Your task to perform on an android device: toggle sleep mode Image 0: 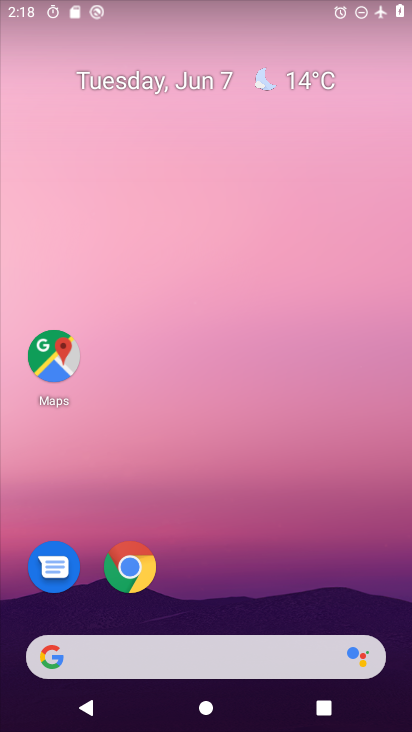
Step 0: drag from (336, 574) to (400, 0)
Your task to perform on an android device: toggle sleep mode Image 1: 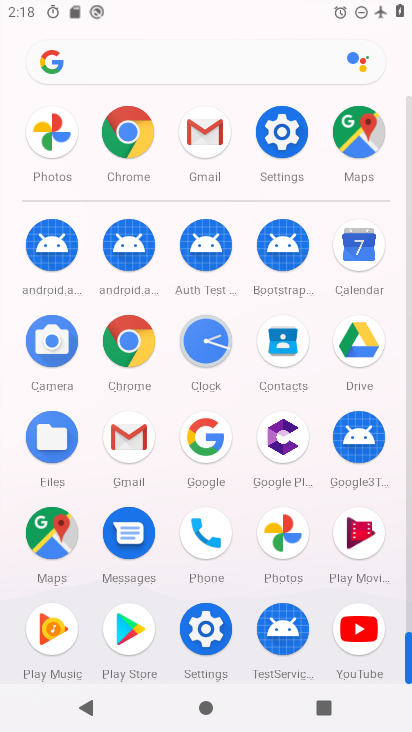
Step 1: click (294, 151)
Your task to perform on an android device: toggle sleep mode Image 2: 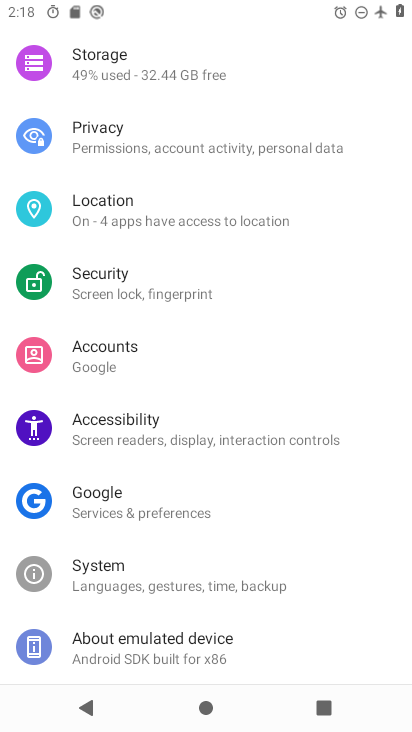
Step 2: drag from (244, 203) to (216, 605)
Your task to perform on an android device: toggle sleep mode Image 3: 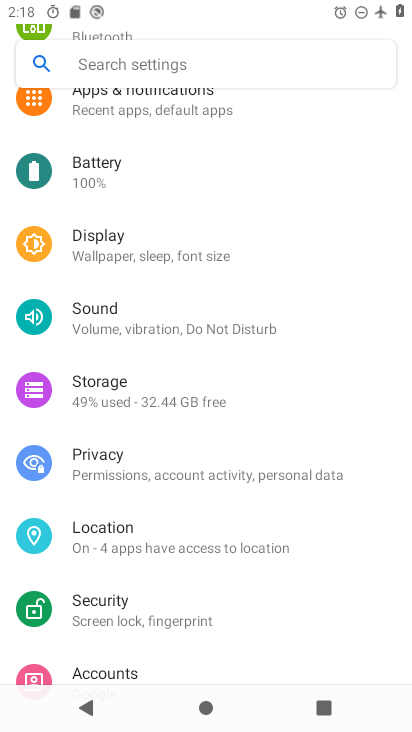
Step 3: click (157, 235)
Your task to perform on an android device: toggle sleep mode Image 4: 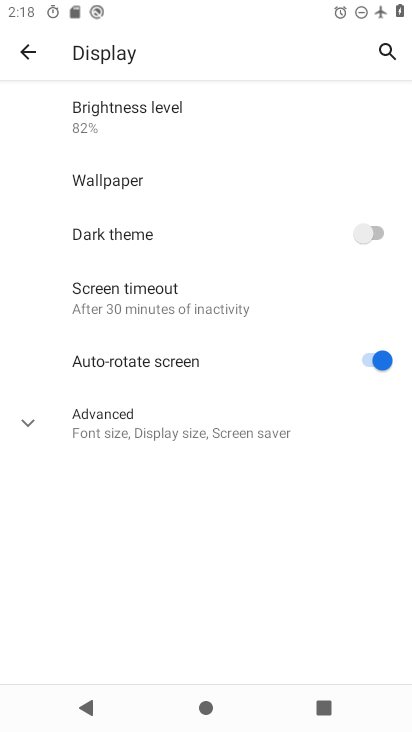
Step 4: click (112, 308)
Your task to perform on an android device: toggle sleep mode Image 5: 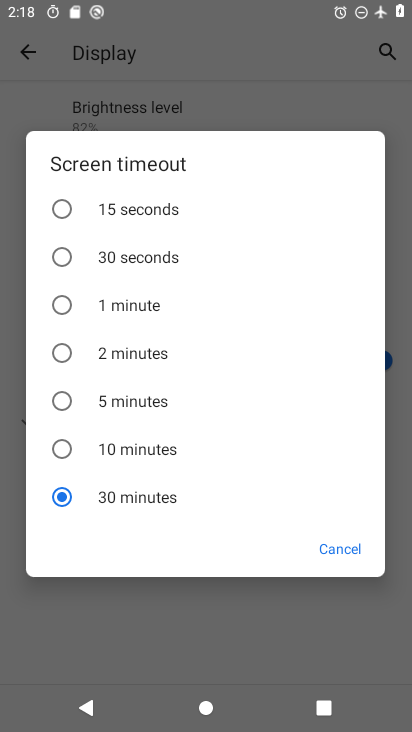
Step 5: click (87, 364)
Your task to perform on an android device: toggle sleep mode Image 6: 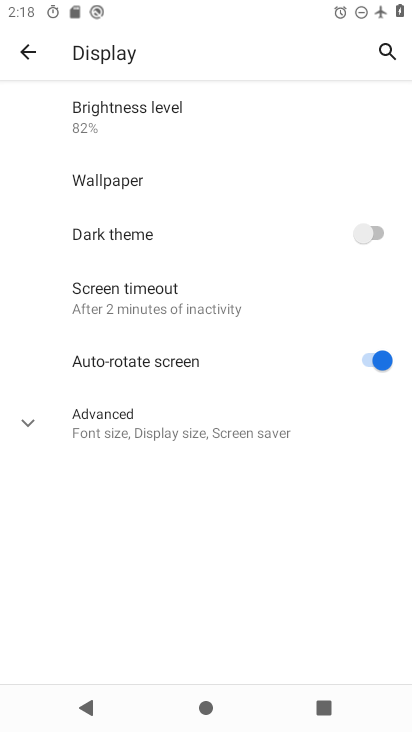
Step 6: task complete